Your task to perform on an android device: toggle sleep mode Image 0: 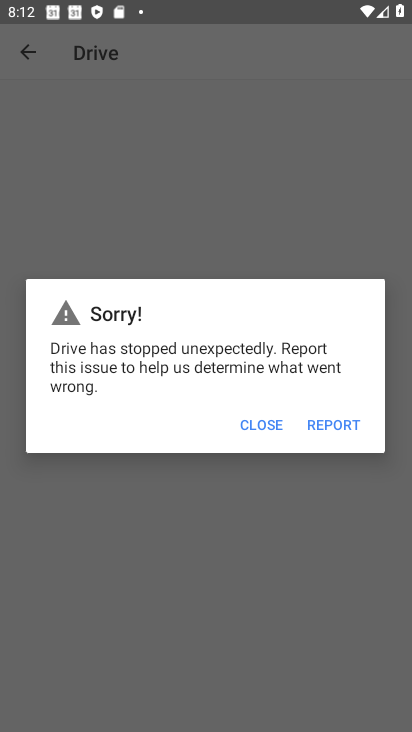
Step 0: press home button
Your task to perform on an android device: toggle sleep mode Image 1: 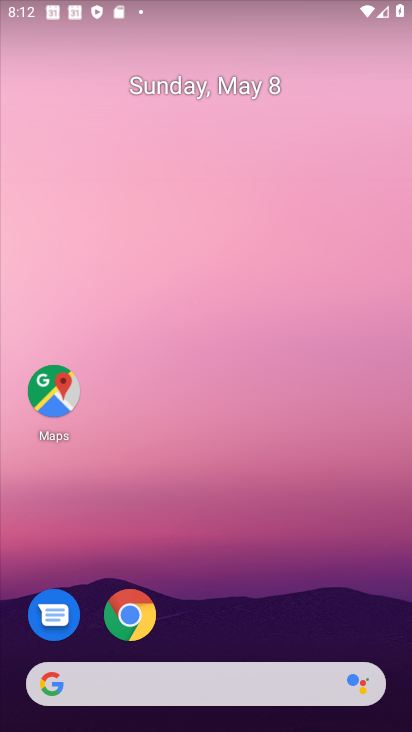
Step 1: drag from (262, 615) to (291, 193)
Your task to perform on an android device: toggle sleep mode Image 2: 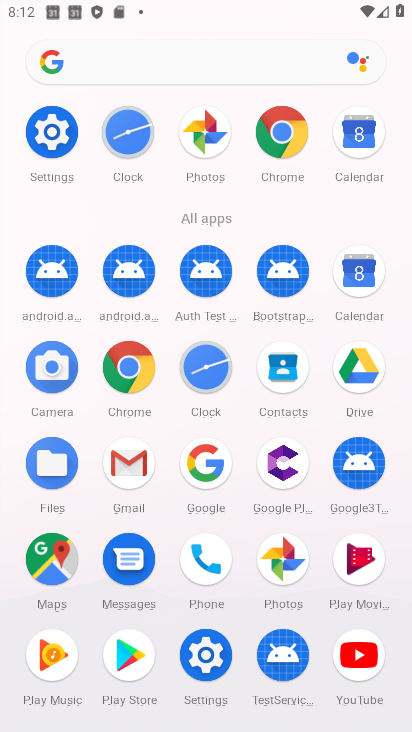
Step 2: click (51, 147)
Your task to perform on an android device: toggle sleep mode Image 3: 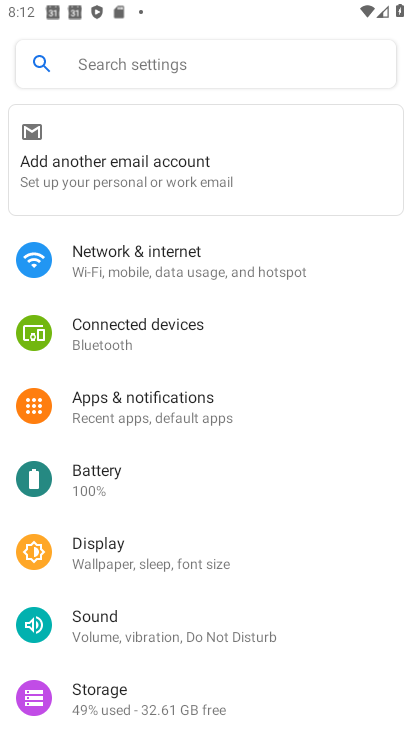
Step 3: click (213, 550)
Your task to perform on an android device: toggle sleep mode Image 4: 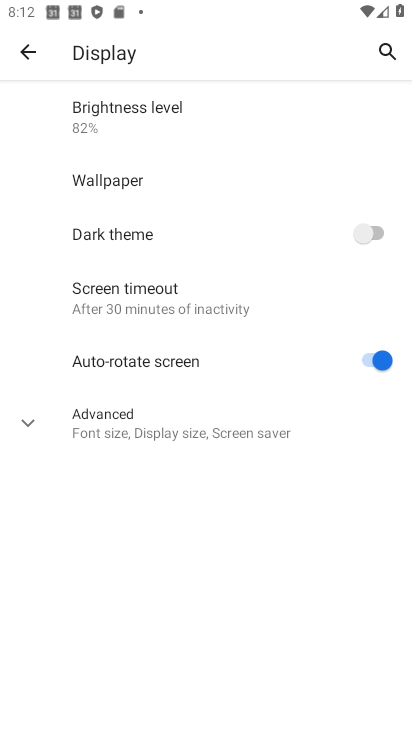
Step 4: click (291, 427)
Your task to perform on an android device: toggle sleep mode Image 5: 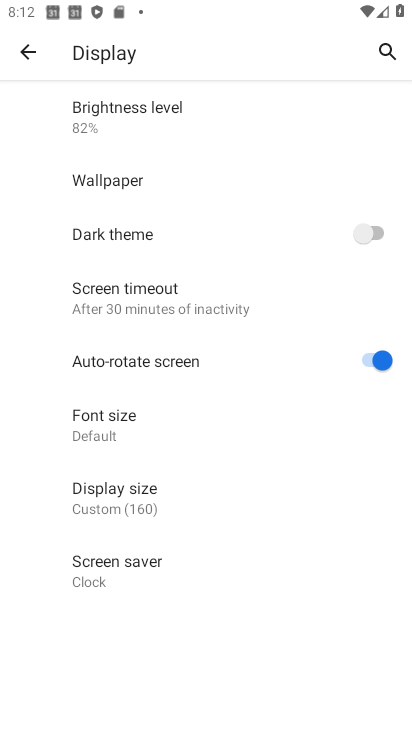
Step 5: task complete